Your task to perform on an android device: turn off sleep mode Image 0: 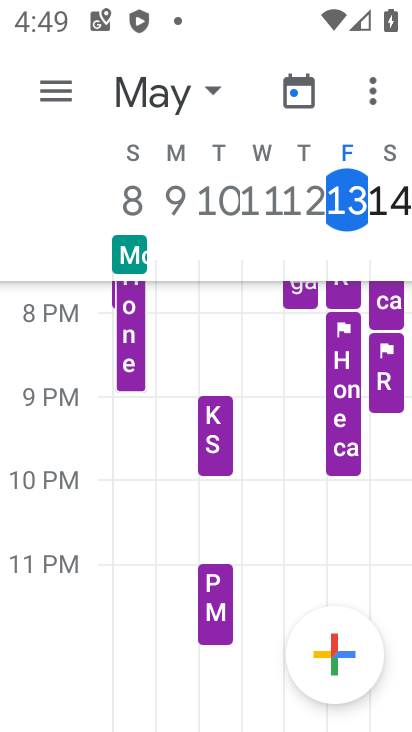
Step 0: press home button
Your task to perform on an android device: turn off sleep mode Image 1: 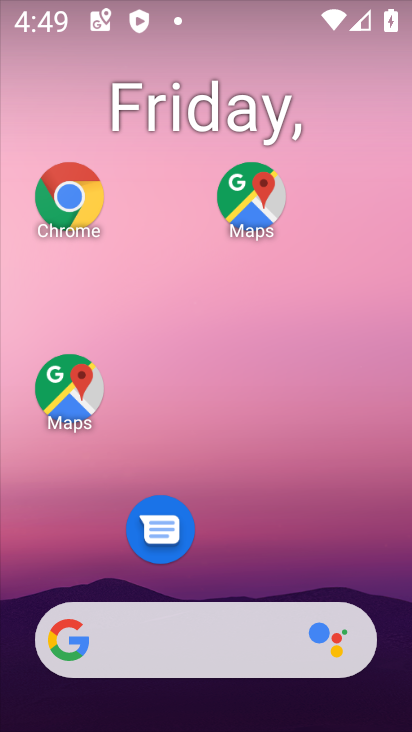
Step 1: task complete